Your task to perform on an android device: Open location settings Image 0: 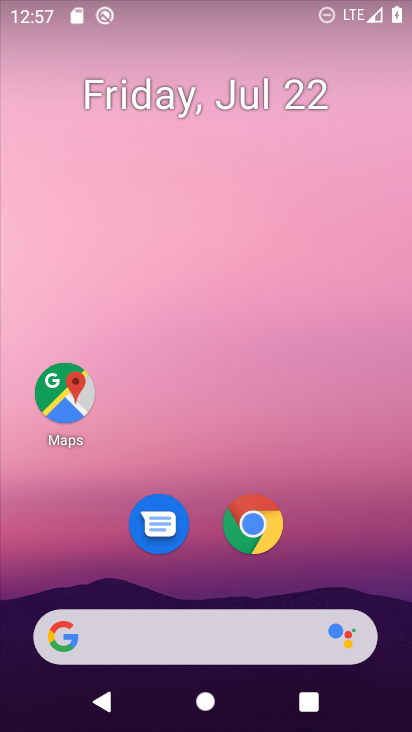
Step 0: drag from (324, 555) to (317, 61)
Your task to perform on an android device: Open location settings Image 1: 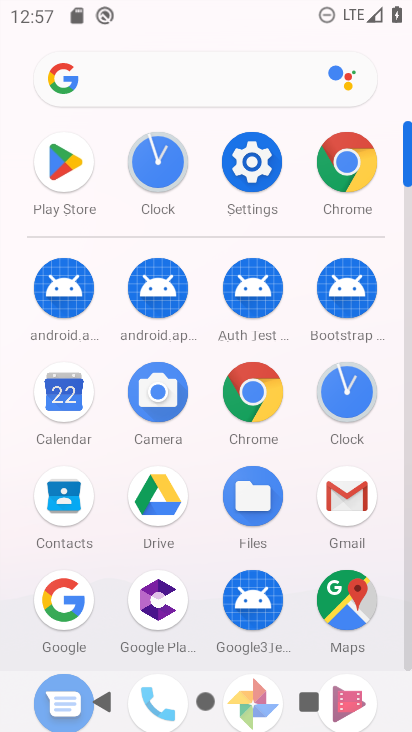
Step 1: click (257, 154)
Your task to perform on an android device: Open location settings Image 2: 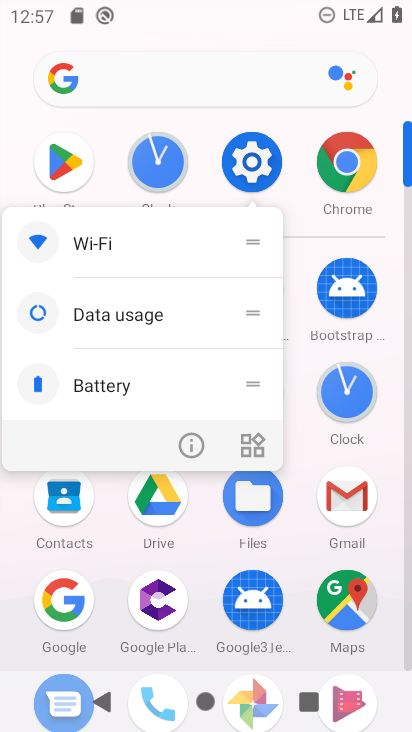
Step 2: click (260, 162)
Your task to perform on an android device: Open location settings Image 3: 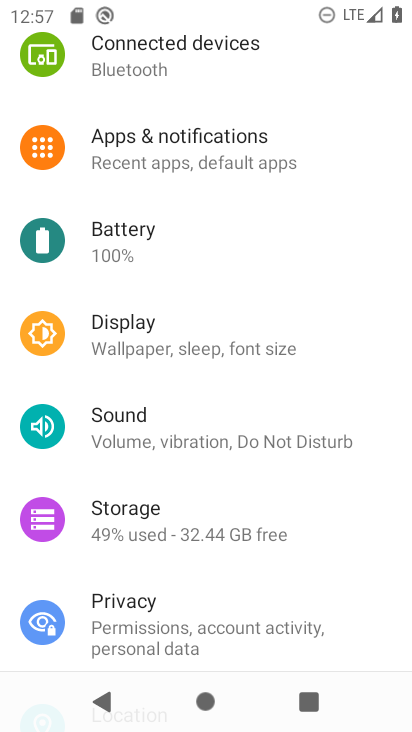
Step 3: drag from (215, 577) to (246, 272)
Your task to perform on an android device: Open location settings Image 4: 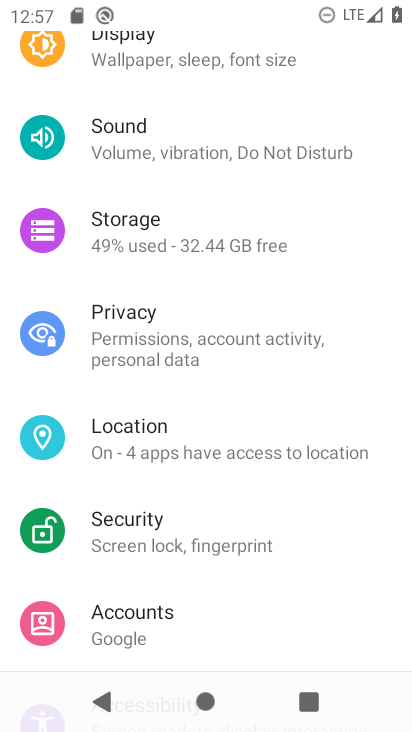
Step 4: click (204, 444)
Your task to perform on an android device: Open location settings Image 5: 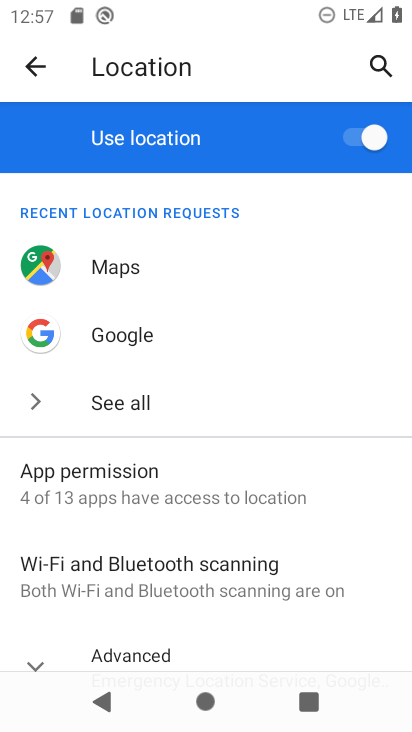
Step 5: task complete